Your task to perform on an android device: set the stopwatch Image 0: 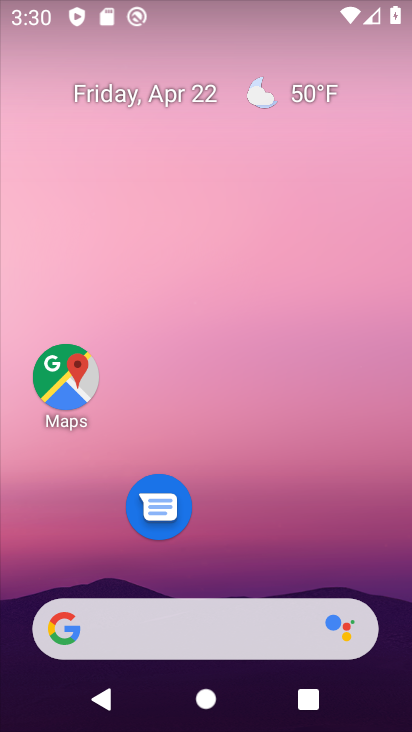
Step 0: drag from (230, 481) to (259, 122)
Your task to perform on an android device: set the stopwatch Image 1: 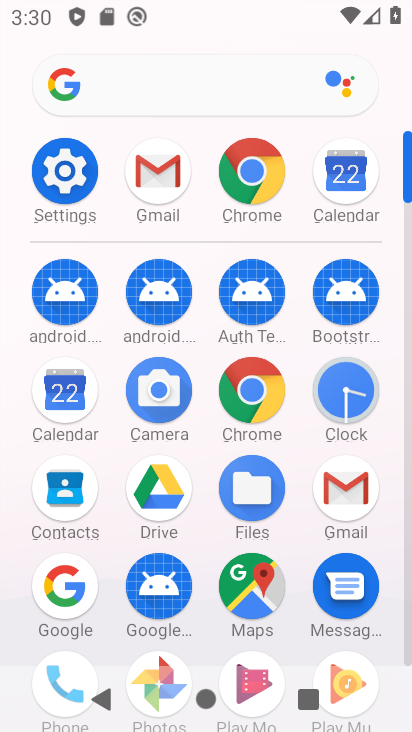
Step 1: click (348, 395)
Your task to perform on an android device: set the stopwatch Image 2: 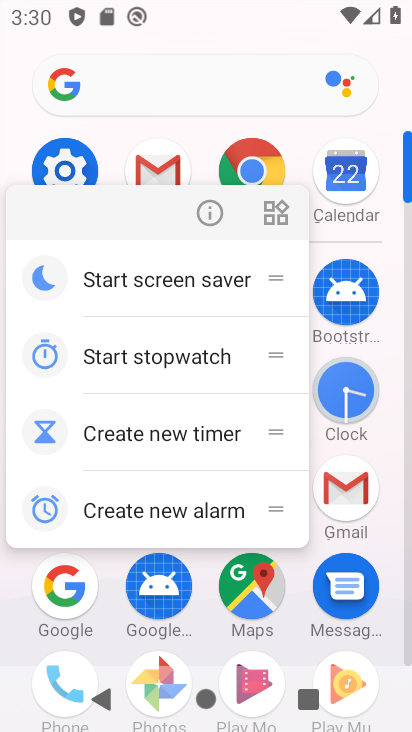
Step 2: click (346, 384)
Your task to perform on an android device: set the stopwatch Image 3: 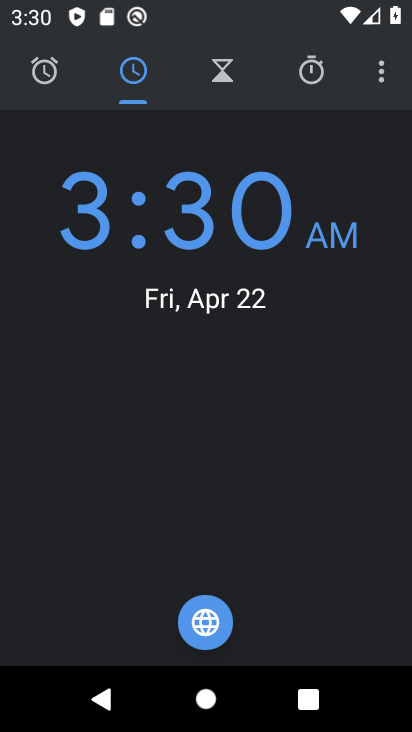
Step 3: click (318, 70)
Your task to perform on an android device: set the stopwatch Image 4: 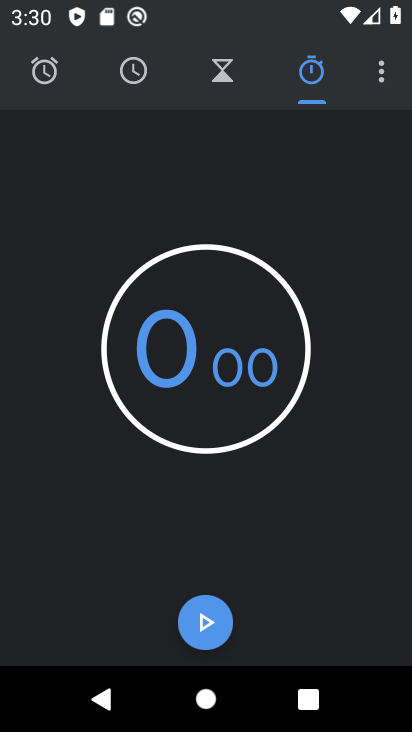
Step 4: click (216, 362)
Your task to perform on an android device: set the stopwatch Image 5: 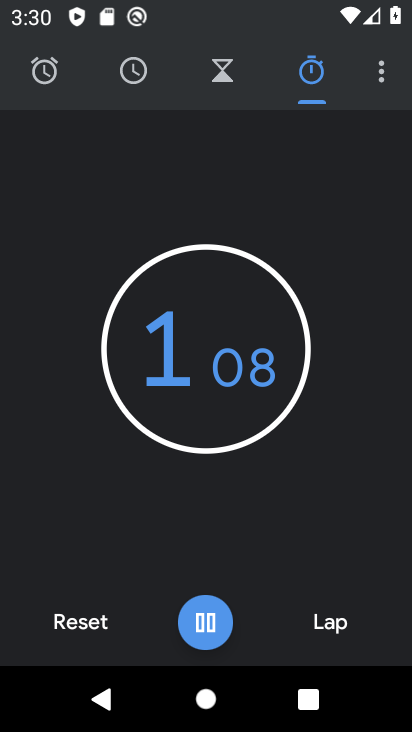
Step 5: click (216, 362)
Your task to perform on an android device: set the stopwatch Image 6: 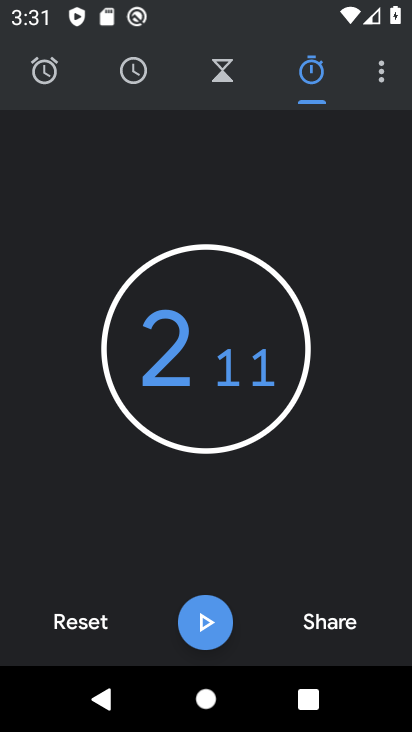
Step 6: task complete